Your task to perform on an android device: turn on translation in the chrome app Image 0: 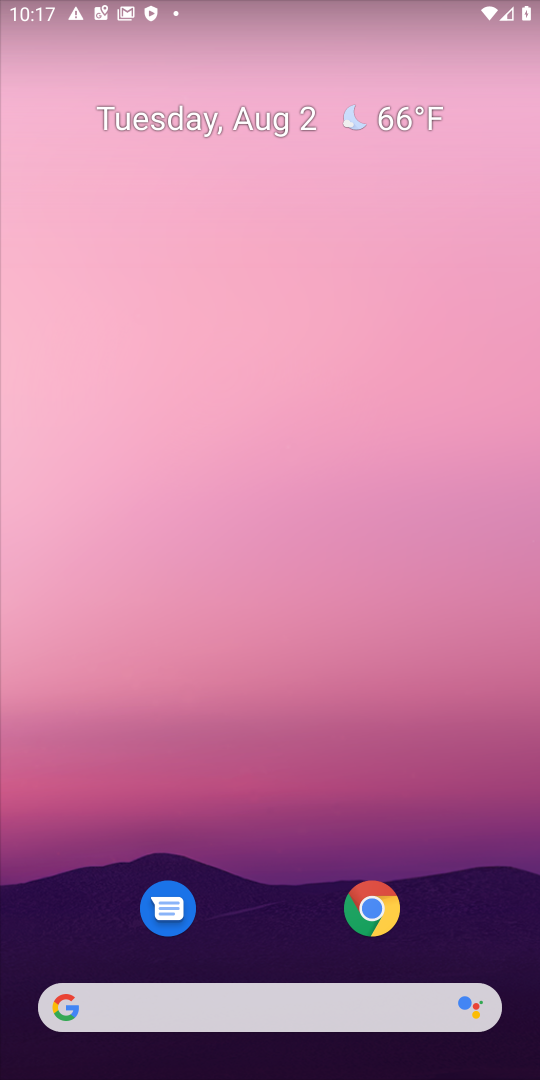
Step 0: task complete